Your task to perform on an android device: Show me recent news Image 0: 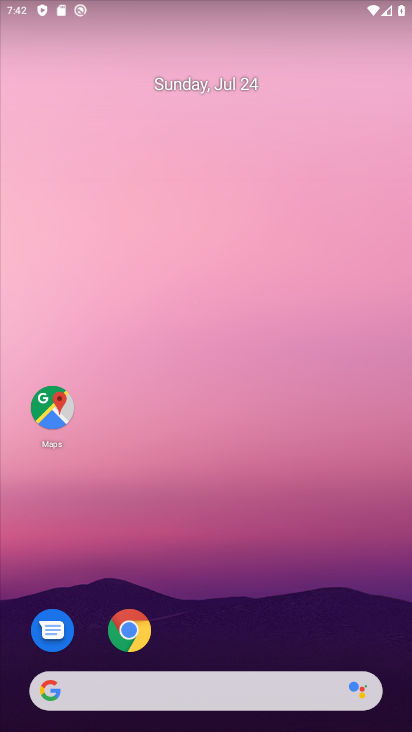
Step 0: drag from (185, 651) to (147, 120)
Your task to perform on an android device: Show me recent news Image 1: 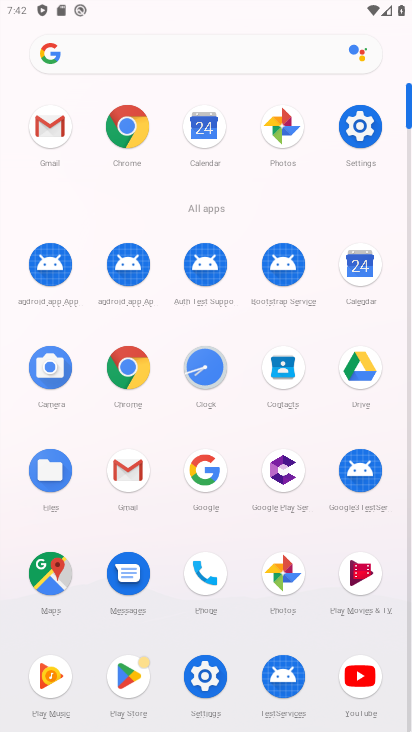
Step 1: click (214, 459)
Your task to perform on an android device: Show me recent news Image 2: 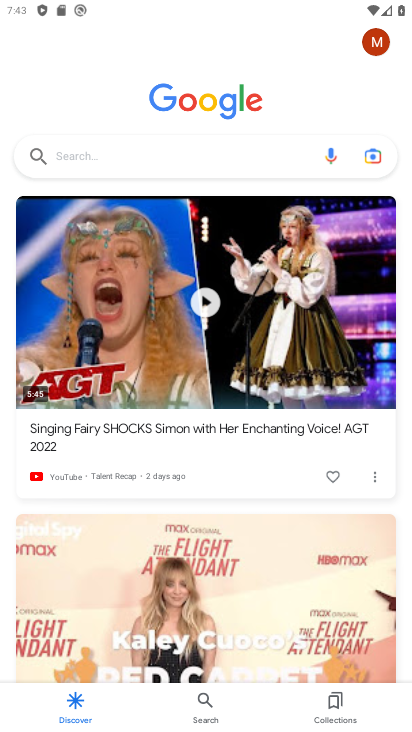
Step 2: click (115, 161)
Your task to perform on an android device: Show me recent news Image 3: 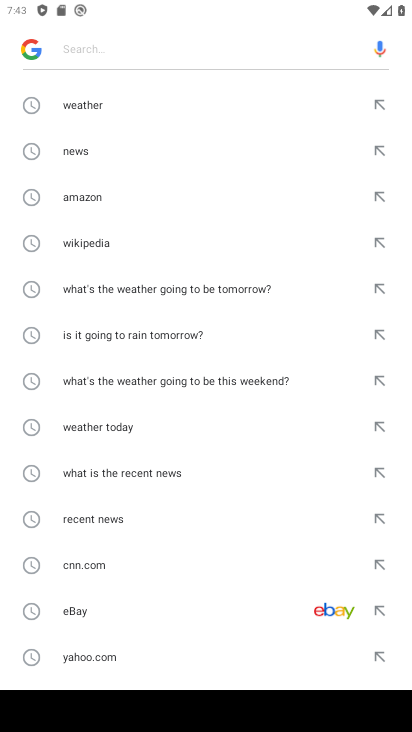
Step 3: click (103, 158)
Your task to perform on an android device: Show me recent news Image 4: 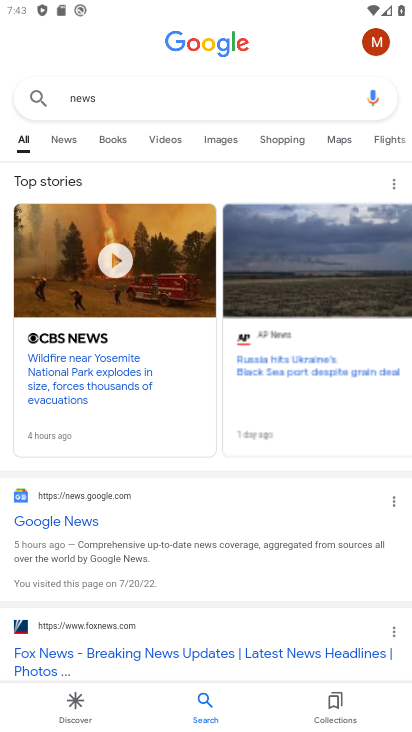
Step 4: click (67, 144)
Your task to perform on an android device: Show me recent news Image 5: 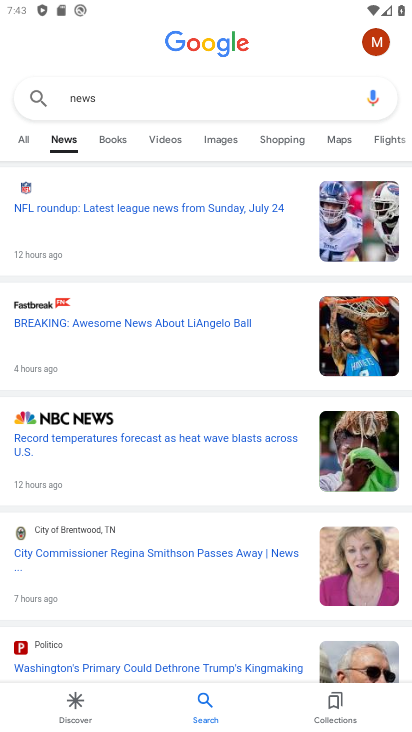
Step 5: task complete